Your task to perform on an android device: Go to sound settings Image 0: 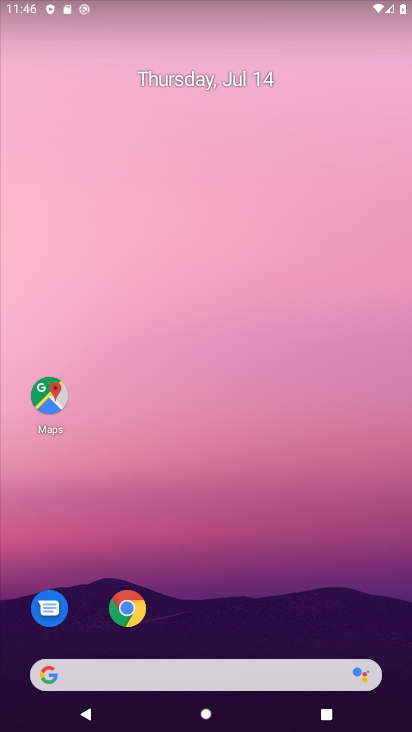
Step 0: drag from (208, 483) to (205, 71)
Your task to perform on an android device: Go to sound settings Image 1: 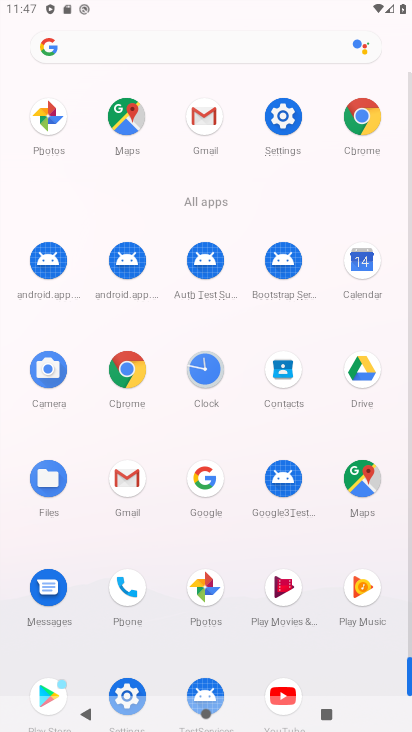
Step 1: click (275, 108)
Your task to perform on an android device: Go to sound settings Image 2: 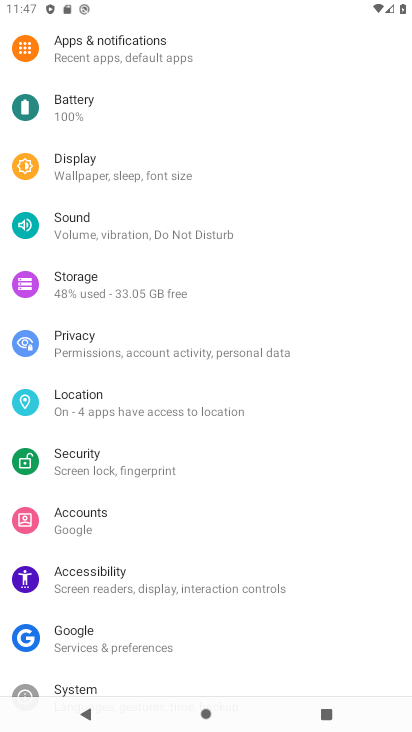
Step 2: drag from (275, 116) to (228, 570)
Your task to perform on an android device: Go to sound settings Image 3: 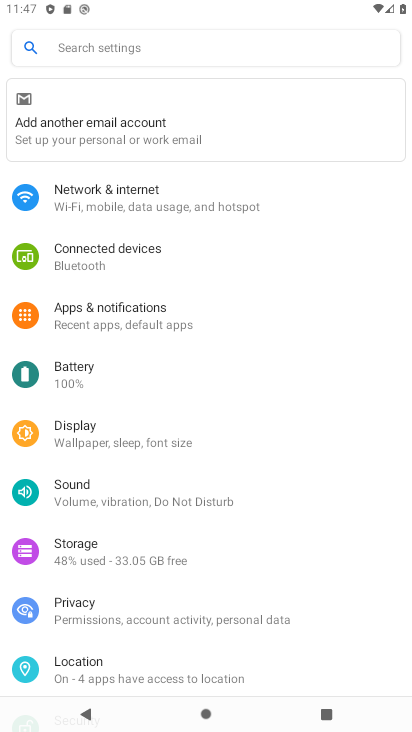
Step 3: click (397, 89)
Your task to perform on an android device: Go to sound settings Image 4: 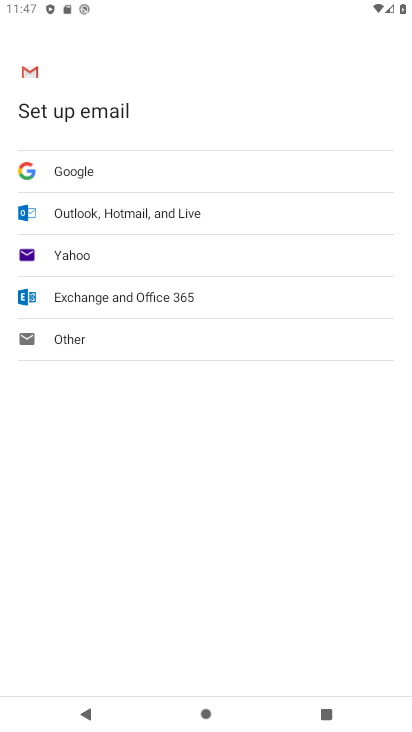
Step 4: press back button
Your task to perform on an android device: Go to sound settings Image 5: 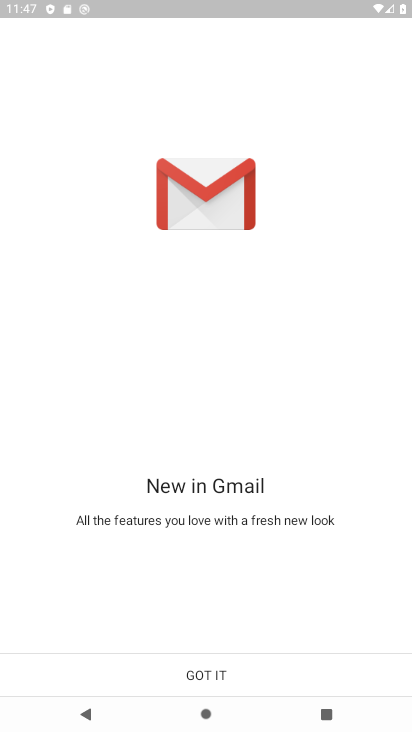
Step 5: press back button
Your task to perform on an android device: Go to sound settings Image 6: 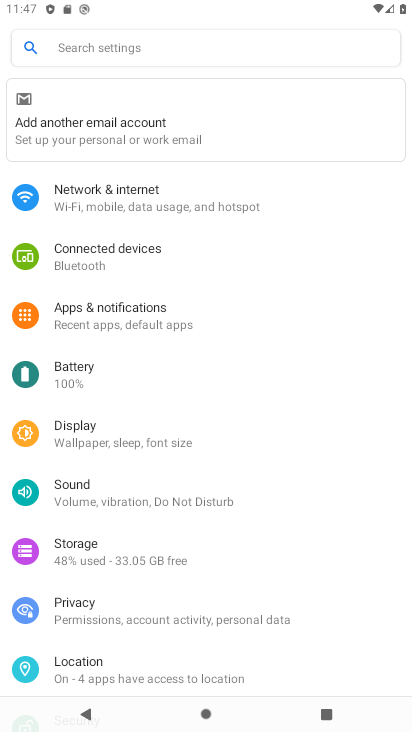
Step 6: click (84, 498)
Your task to perform on an android device: Go to sound settings Image 7: 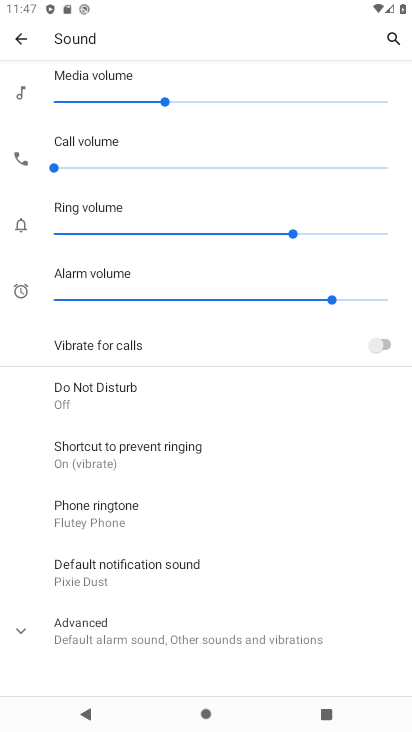
Step 7: task complete